Your task to perform on an android device: Open Google Chrome Image 0: 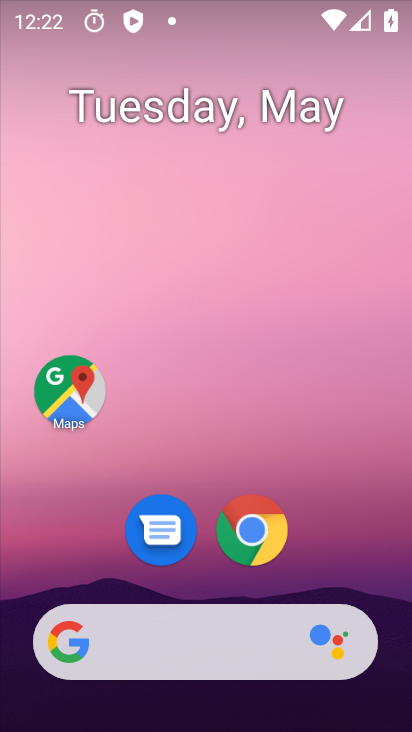
Step 0: drag from (372, 514) to (243, 22)
Your task to perform on an android device: Open Google Chrome Image 1: 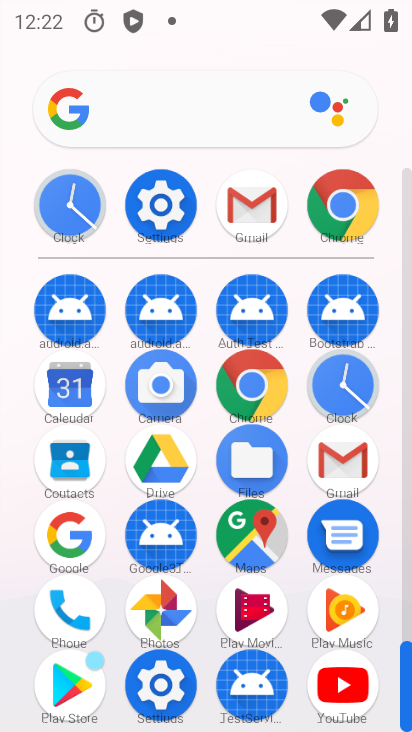
Step 1: drag from (10, 595) to (30, 260)
Your task to perform on an android device: Open Google Chrome Image 2: 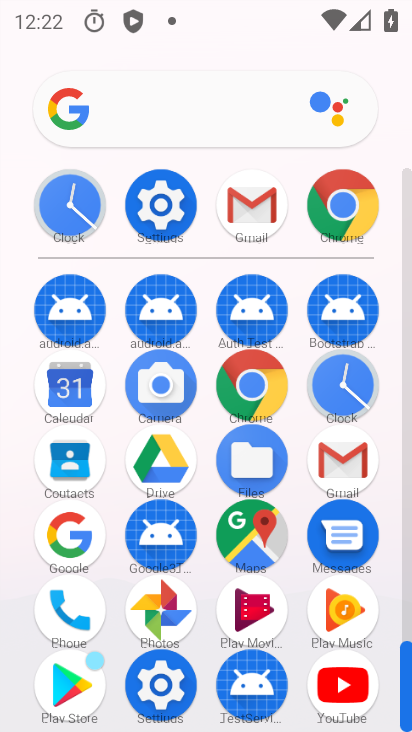
Step 2: click (253, 380)
Your task to perform on an android device: Open Google Chrome Image 3: 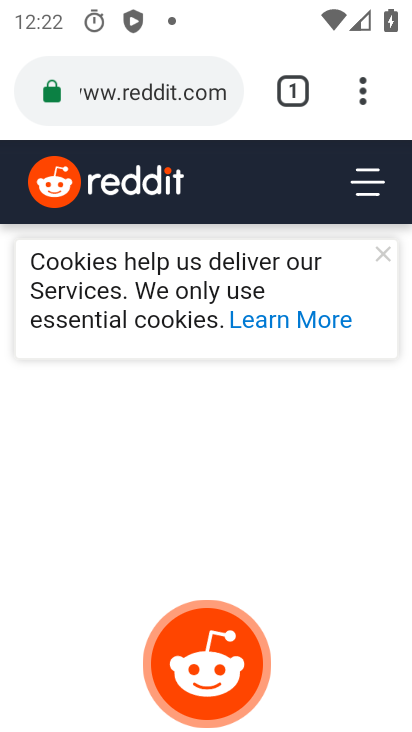
Step 3: task complete